Your task to perform on an android device: change the clock display to show seconds Image 0: 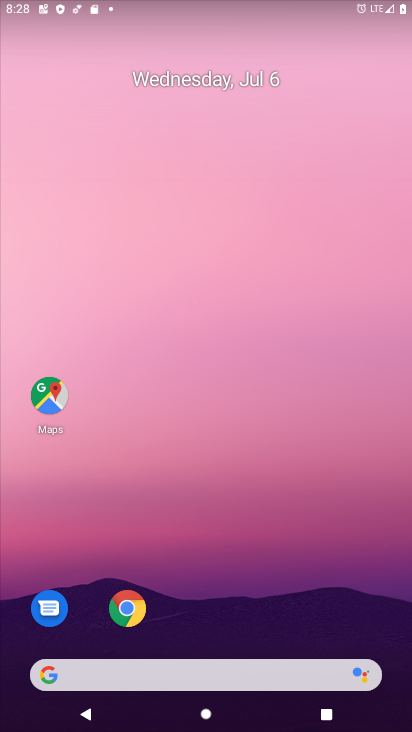
Step 0: drag from (358, 613) to (277, 16)
Your task to perform on an android device: change the clock display to show seconds Image 1: 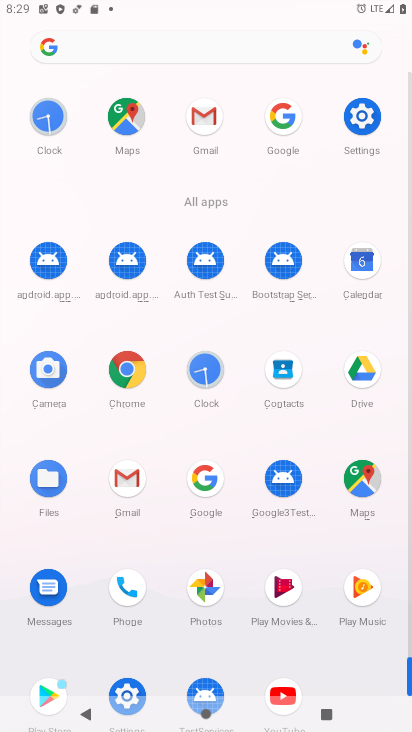
Step 1: click (200, 355)
Your task to perform on an android device: change the clock display to show seconds Image 2: 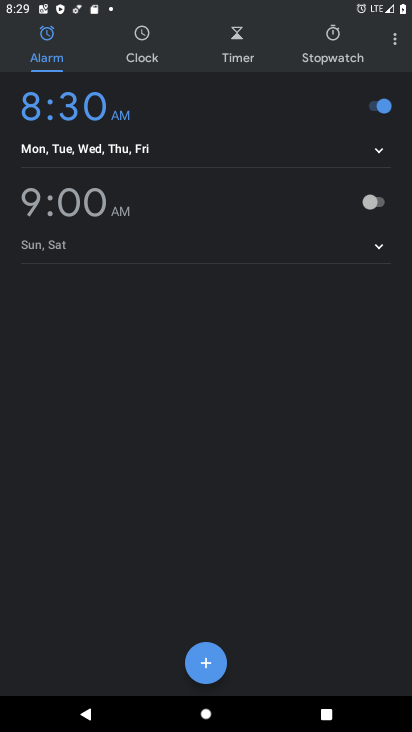
Step 2: click (396, 42)
Your task to perform on an android device: change the clock display to show seconds Image 3: 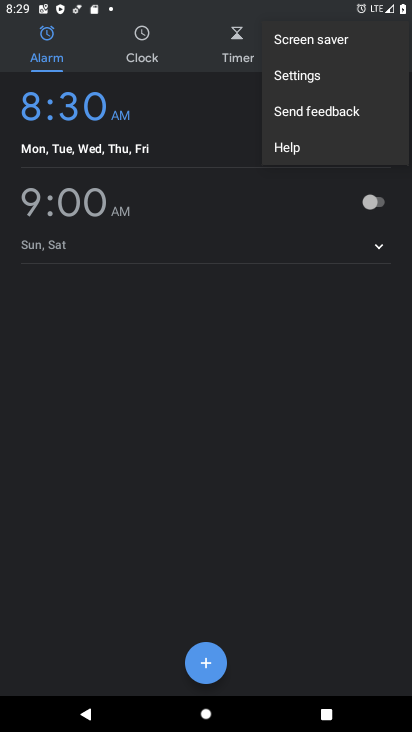
Step 3: click (328, 80)
Your task to perform on an android device: change the clock display to show seconds Image 4: 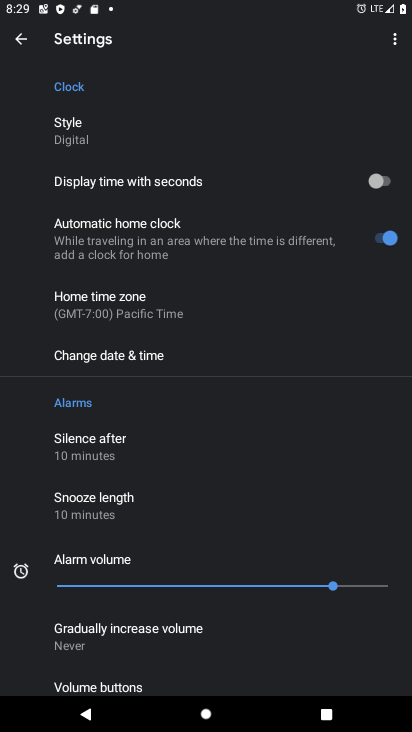
Step 4: drag from (180, 503) to (227, 293)
Your task to perform on an android device: change the clock display to show seconds Image 5: 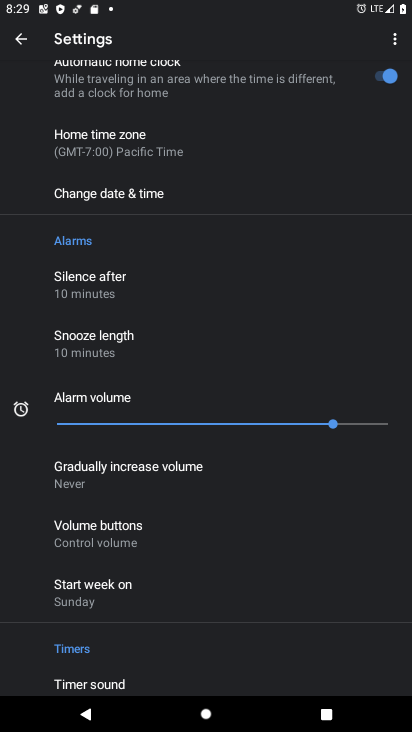
Step 5: drag from (156, 582) to (187, 262)
Your task to perform on an android device: change the clock display to show seconds Image 6: 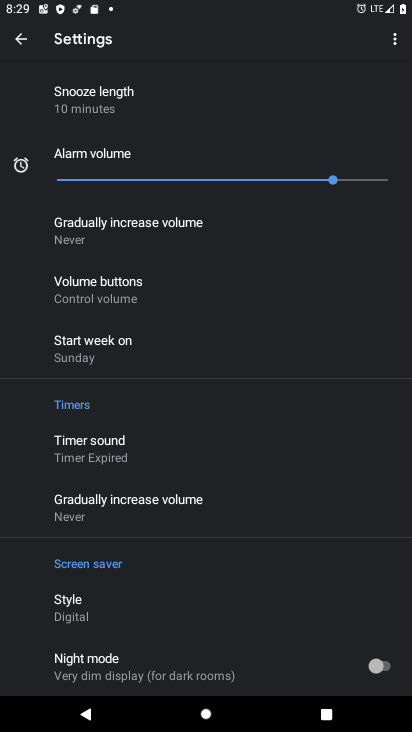
Step 6: drag from (123, 499) to (149, 253)
Your task to perform on an android device: change the clock display to show seconds Image 7: 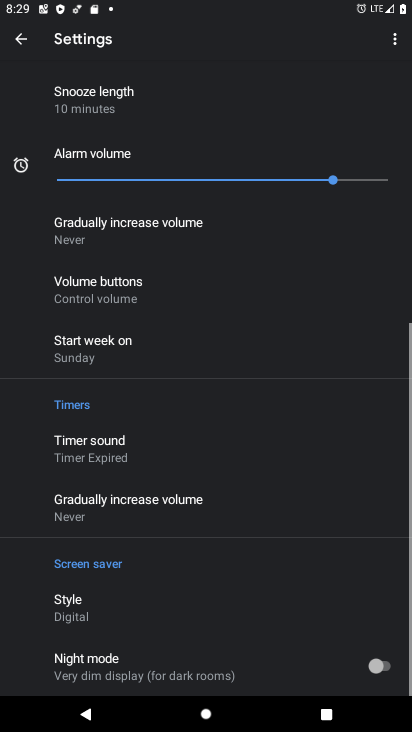
Step 7: drag from (149, 252) to (125, 563)
Your task to perform on an android device: change the clock display to show seconds Image 8: 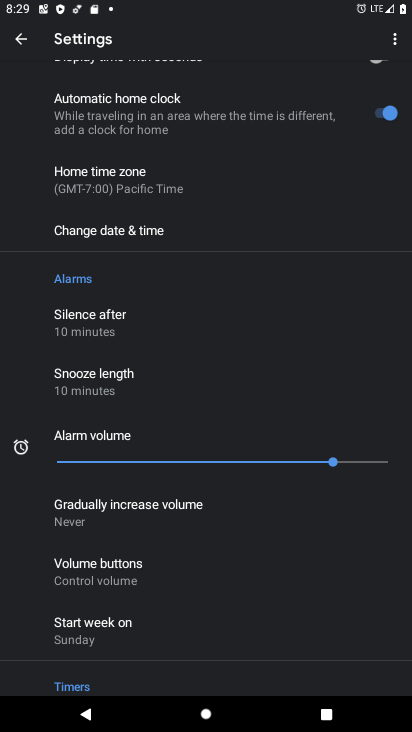
Step 8: drag from (116, 280) to (85, 509)
Your task to perform on an android device: change the clock display to show seconds Image 9: 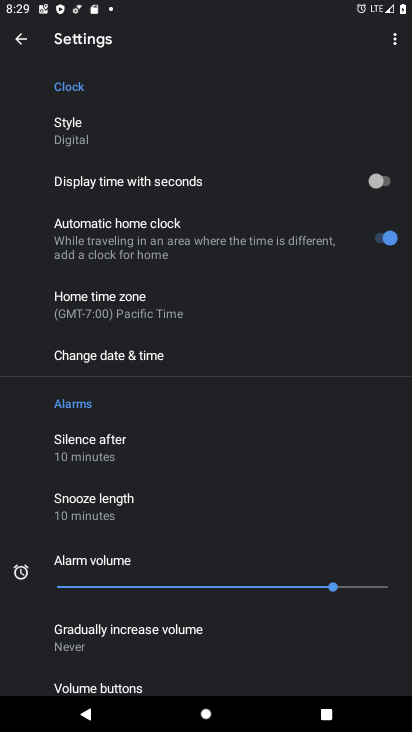
Step 9: drag from (146, 222) to (111, 489)
Your task to perform on an android device: change the clock display to show seconds Image 10: 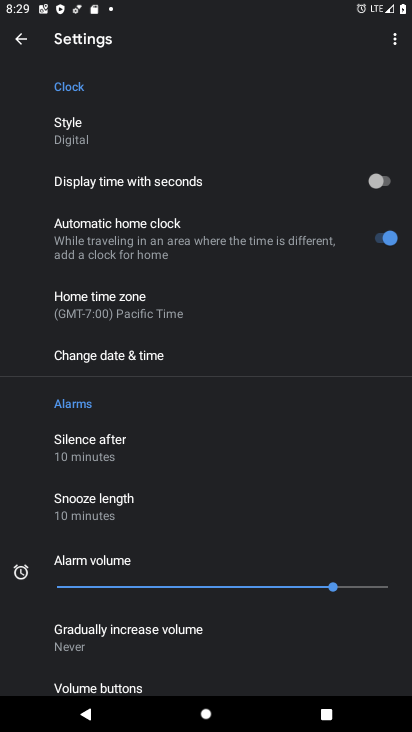
Step 10: click (367, 194)
Your task to perform on an android device: change the clock display to show seconds Image 11: 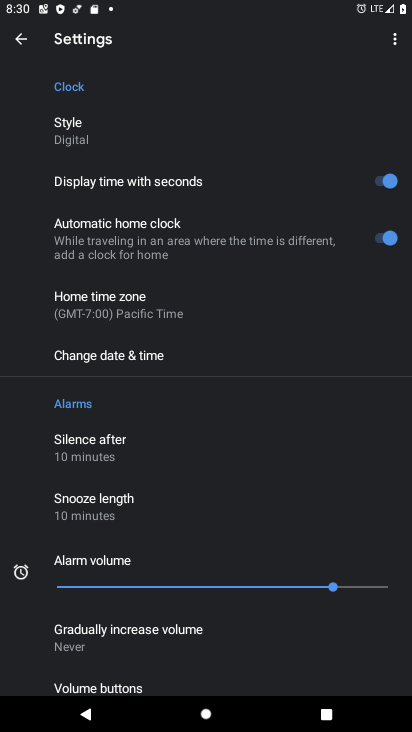
Step 11: task complete